Your task to perform on an android device: toggle pop-ups in chrome Image 0: 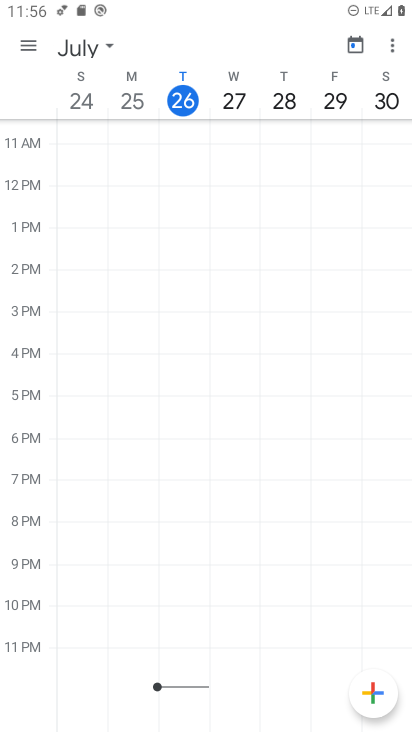
Step 0: press home button
Your task to perform on an android device: toggle pop-ups in chrome Image 1: 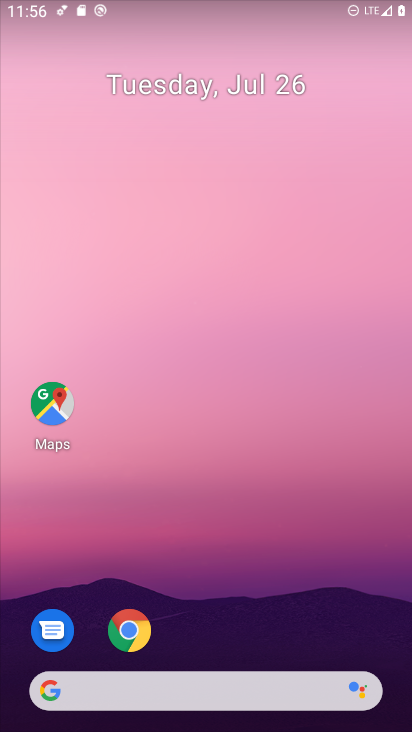
Step 1: click (134, 628)
Your task to perform on an android device: toggle pop-ups in chrome Image 2: 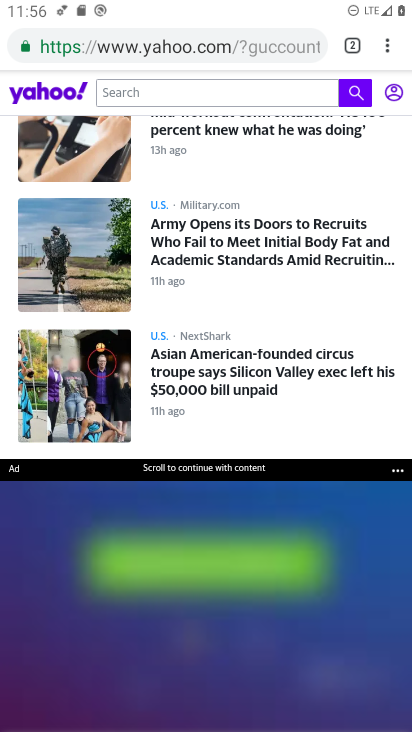
Step 2: click (385, 52)
Your task to perform on an android device: toggle pop-ups in chrome Image 3: 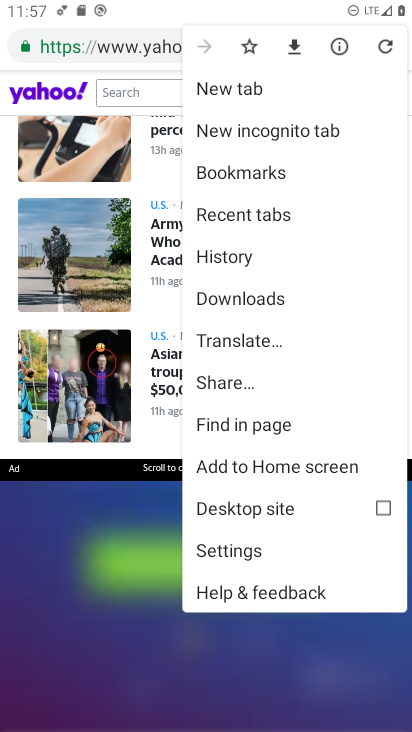
Step 3: click (239, 549)
Your task to perform on an android device: toggle pop-ups in chrome Image 4: 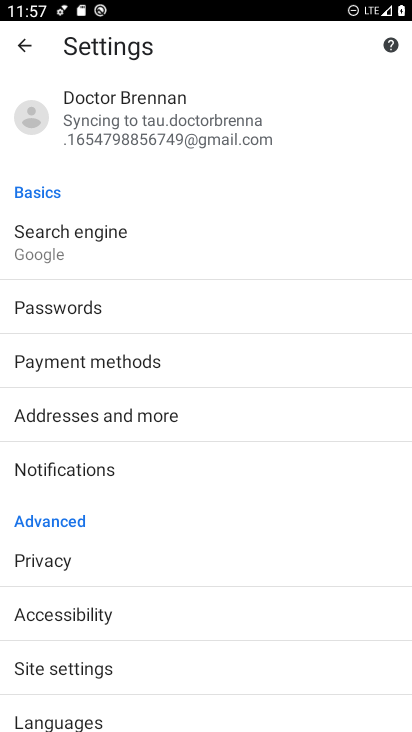
Step 4: drag from (177, 647) to (204, 408)
Your task to perform on an android device: toggle pop-ups in chrome Image 5: 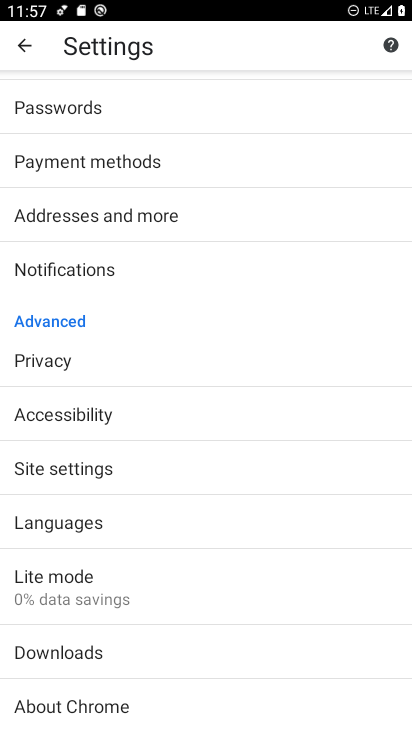
Step 5: click (63, 475)
Your task to perform on an android device: toggle pop-ups in chrome Image 6: 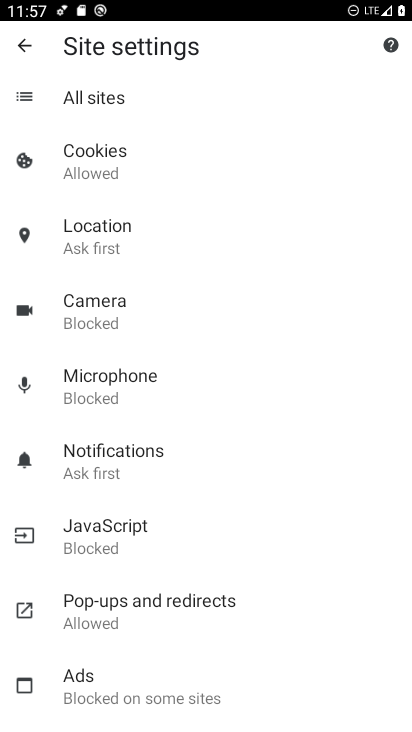
Step 6: click (123, 607)
Your task to perform on an android device: toggle pop-ups in chrome Image 7: 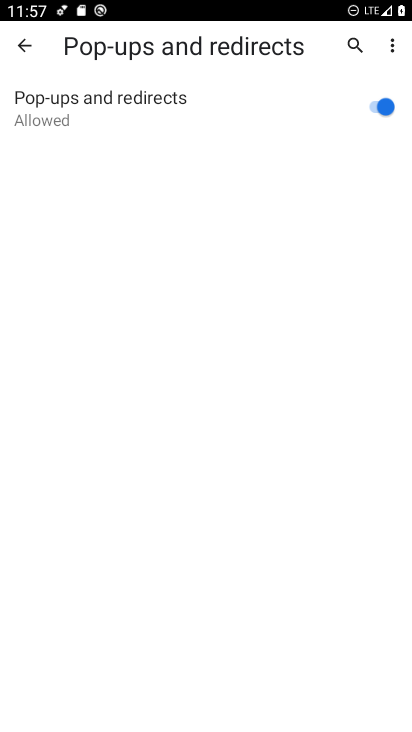
Step 7: click (374, 100)
Your task to perform on an android device: toggle pop-ups in chrome Image 8: 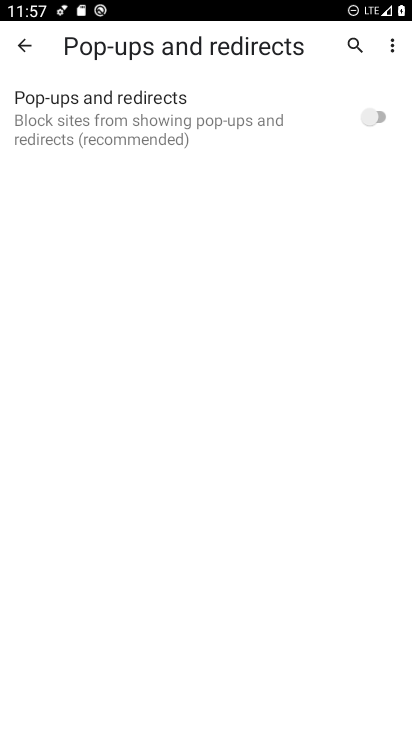
Step 8: task complete